Your task to perform on an android device: move a message to another label in the gmail app Image 0: 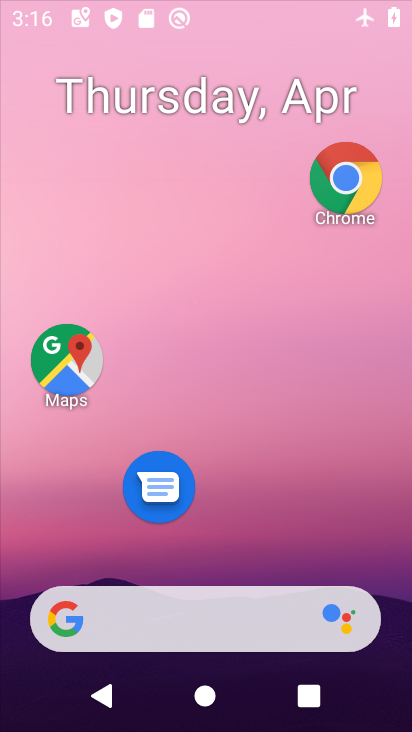
Step 0: drag from (276, 544) to (281, 342)
Your task to perform on an android device: move a message to another label in the gmail app Image 1: 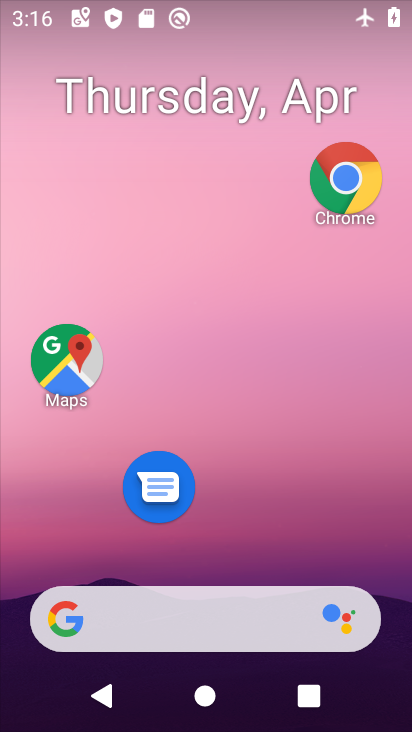
Step 1: drag from (255, 547) to (249, 510)
Your task to perform on an android device: move a message to another label in the gmail app Image 2: 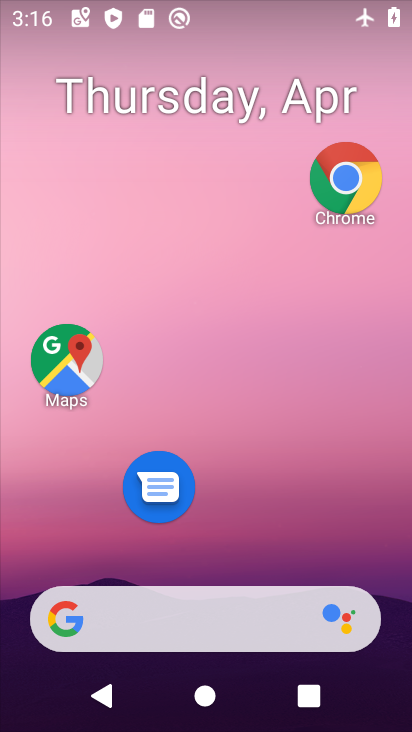
Step 2: drag from (259, 547) to (272, 262)
Your task to perform on an android device: move a message to another label in the gmail app Image 3: 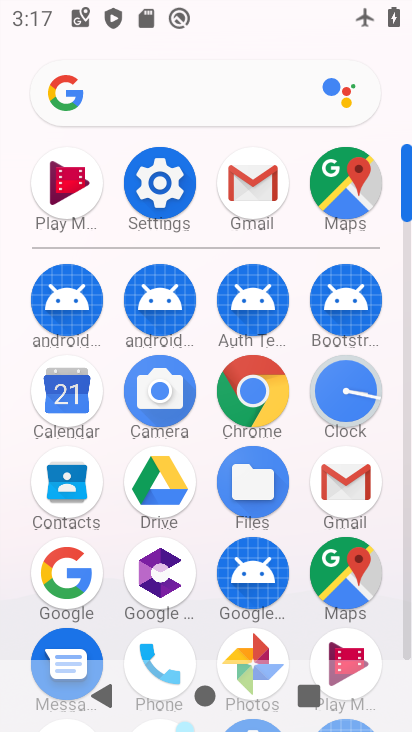
Step 3: click (354, 481)
Your task to perform on an android device: move a message to another label in the gmail app Image 4: 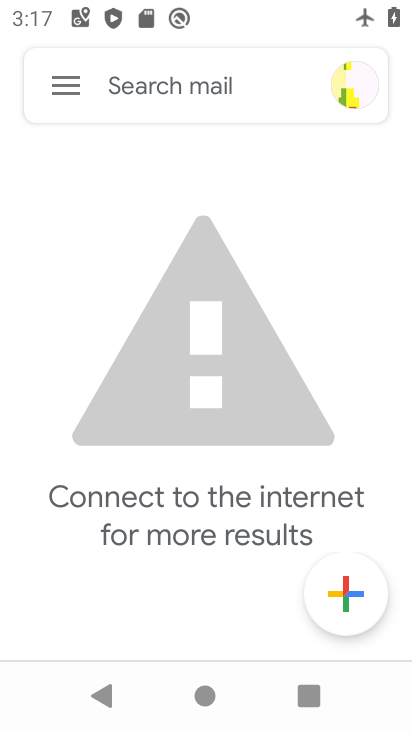
Step 4: click (59, 82)
Your task to perform on an android device: move a message to another label in the gmail app Image 5: 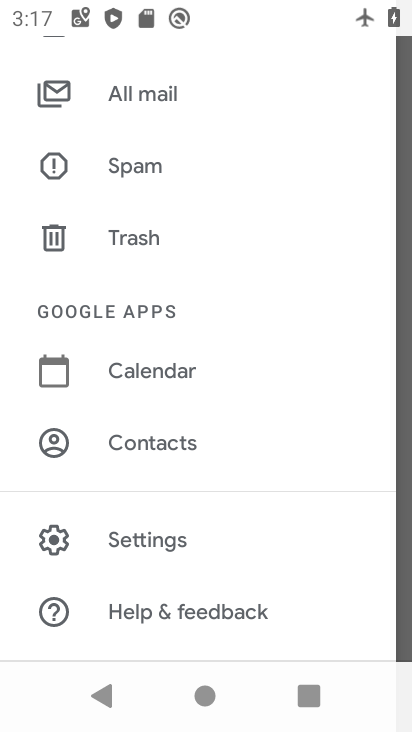
Step 5: click (203, 99)
Your task to perform on an android device: move a message to another label in the gmail app Image 6: 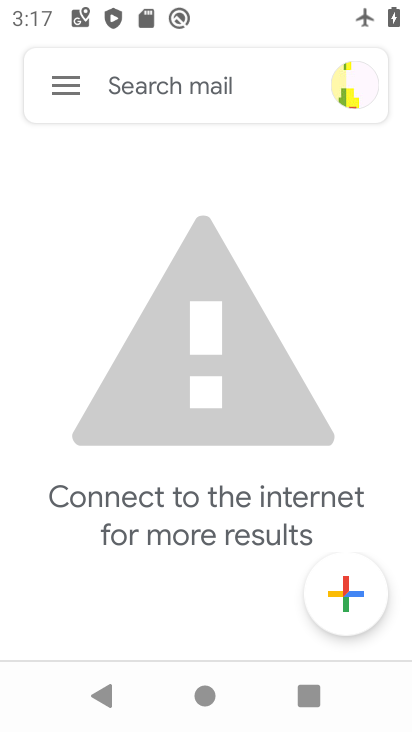
Step 6: task complete